Your task to perform on an android device: Go to display settings Image 0: 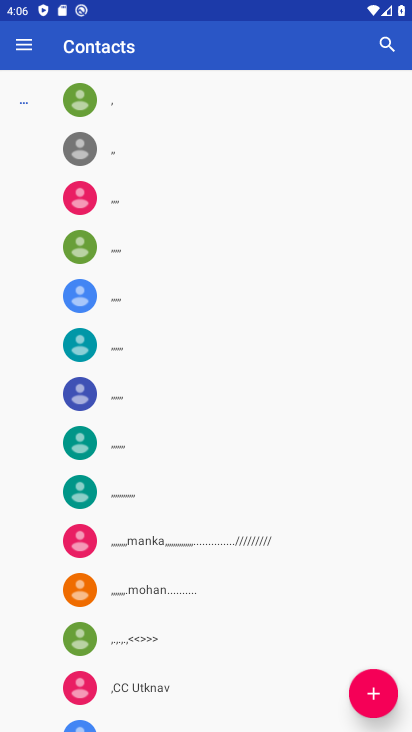
Step 0: press home button
Your task to perform on an android device: Go to display settings Image 1: 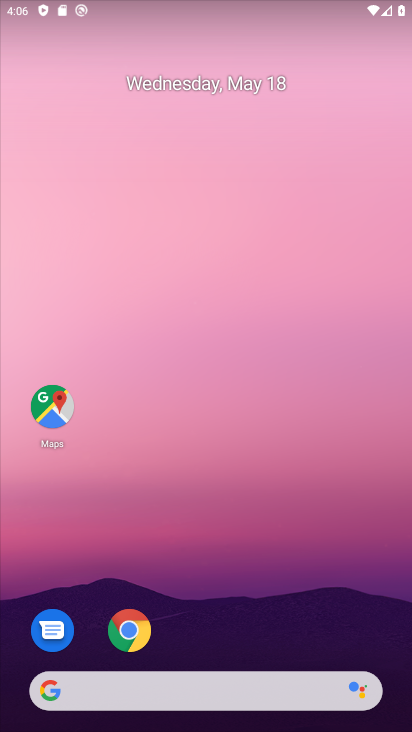
Step 1: drag from (209, 715) to (295, 174)
Your task to perform on an android device: Go to display settings Image 2: 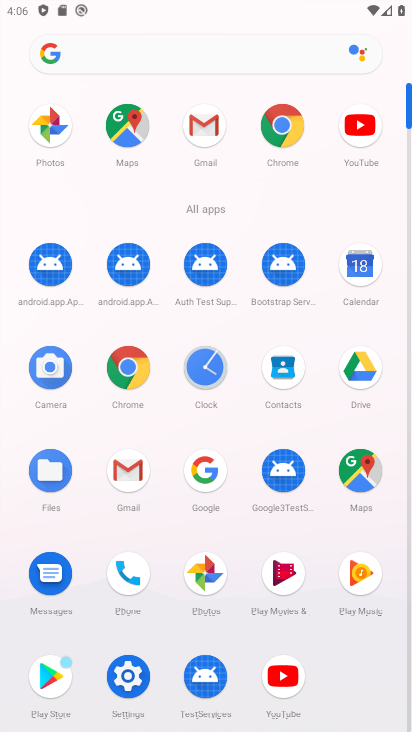
Step 2: click (117, 662)
Your task to perform on an android device: Go to display settings Image 3: 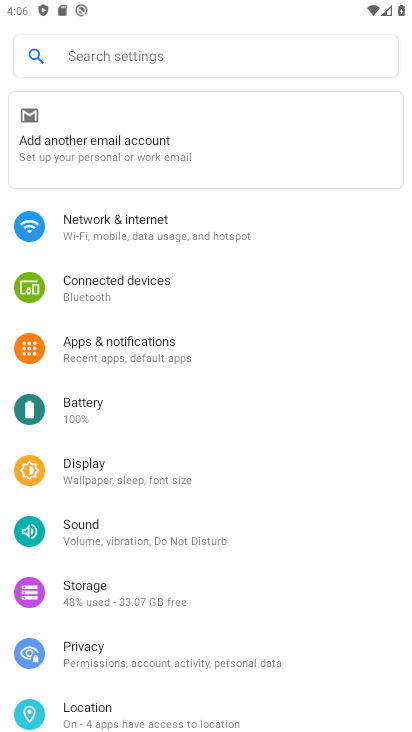
Step 3: click (62, 473)
Your task to perform on an android device: Go to display settings Image 4: 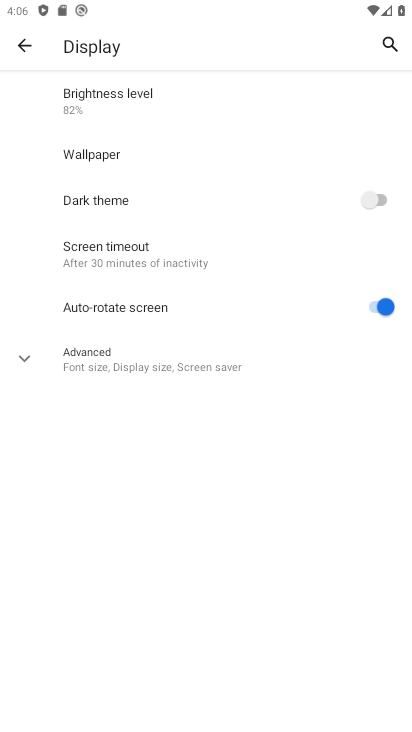
Step 4: task complete